Your task to perform on an android device: Go to Reddit.com Image 0: 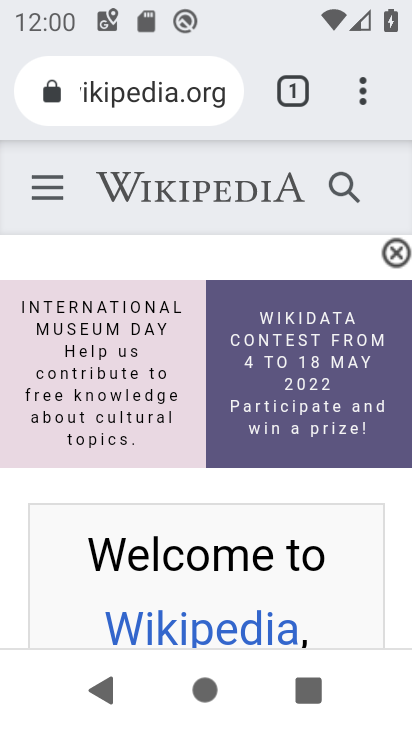
Step 0: click (360, 86)
Your task to perform on an android device: Go to Reddit.com Image 1: 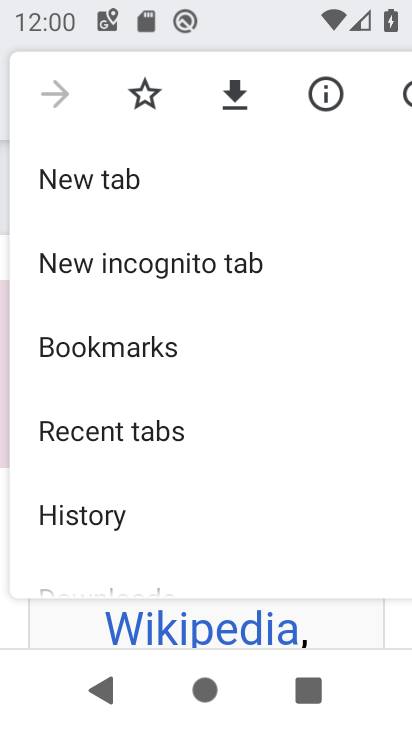
Step 1: click (78, 172)
Your task to perform on an android device: Go to Reddit.com Image 2: 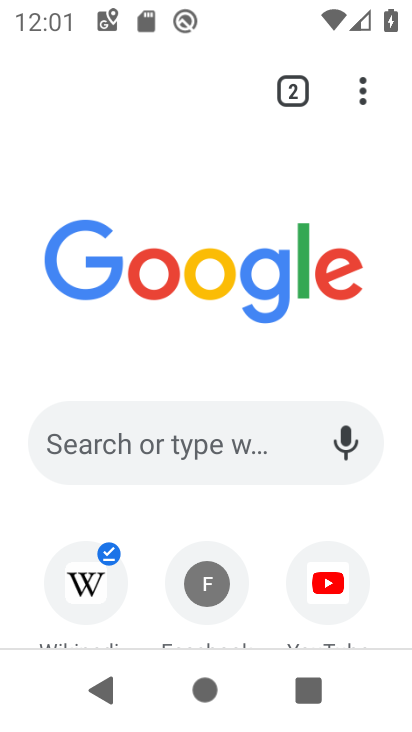
Step 2: drag from (53, 472) to (311, 448)
Your task to perform on an android device: Go to Reddit.com Image 3: 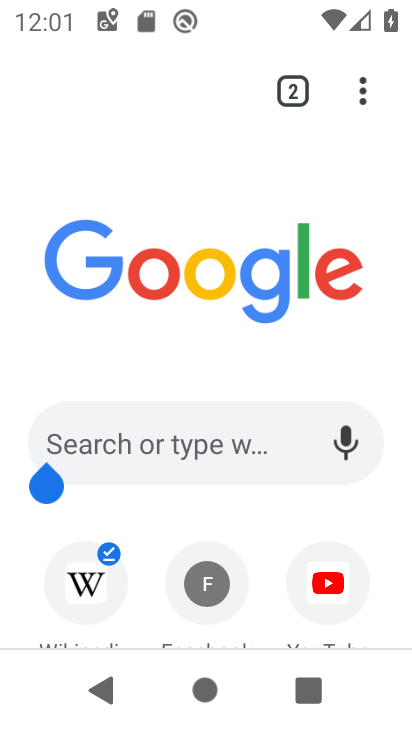
Step 3: drag from (376, 525) to (371, 178)
Your task to perform on an android device: Go to Reddit.com Image 4: 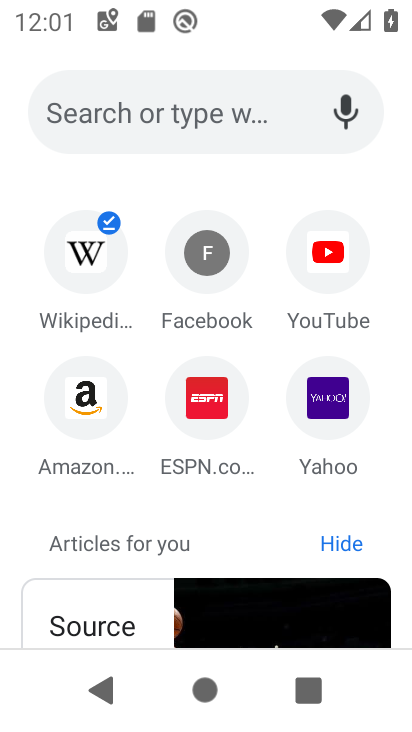
Step 4: click (173, 91)
Your task to perform on an android device: Go to Reddit.com Image 5: 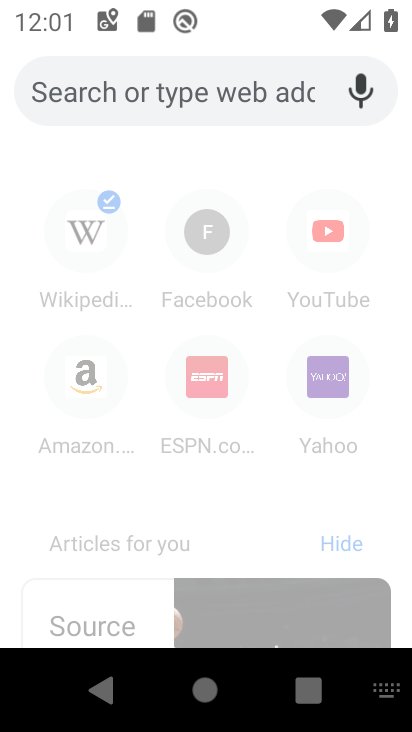
Step 5: type "reddit.com"
Your task to perform on an android device: Go to Reddit.com Image 6: 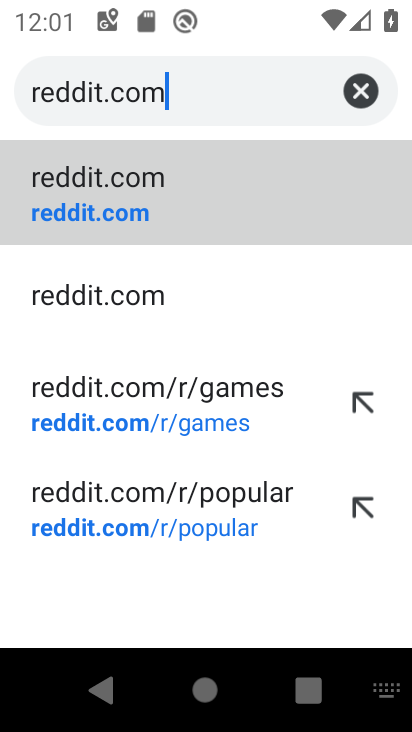
Step 6: click (76, 188)
Your task to perform on an android device: Go to Reddit.com Image 7: 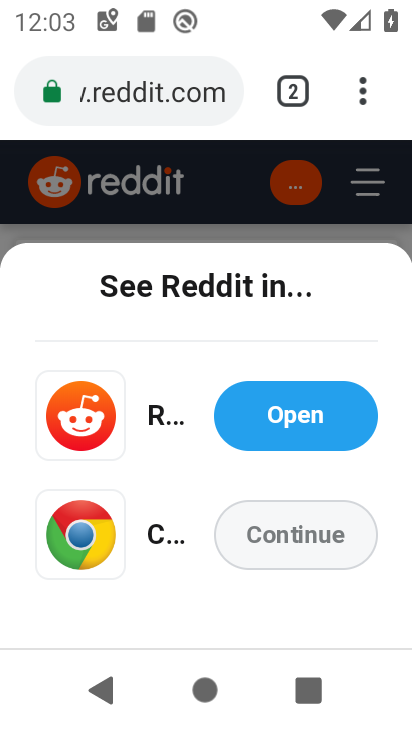
Step 7: task complete